Your task to perform on an android device: Open Google Chrome and click the shortcut for Amazon.com Image 0: 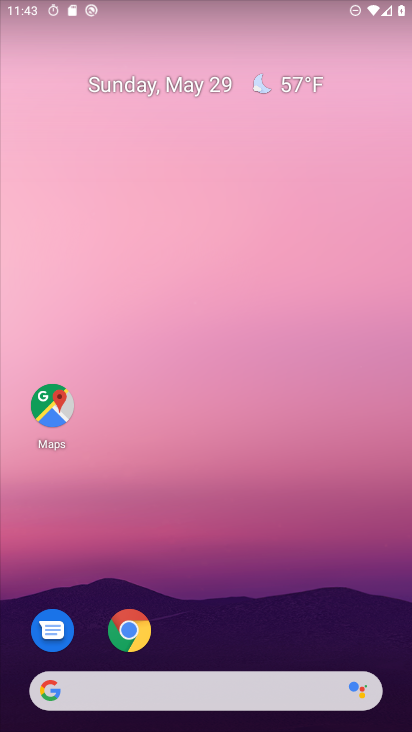
Step 0: press home button
Your task to perform on an android device: Open Google Chrome and click the shortcut for Amazon.com Image 1: 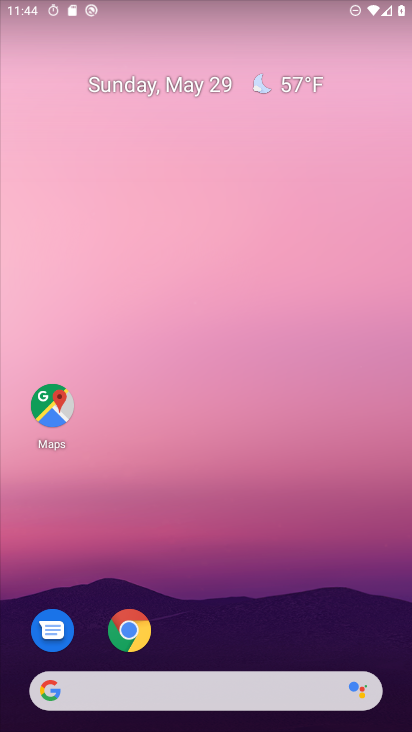
Step 1: drag from (323, 705) to (242, 288)
Your task to perform on an android device: Open Google Chrome and click the shortcut for Amazon.com Image 2: 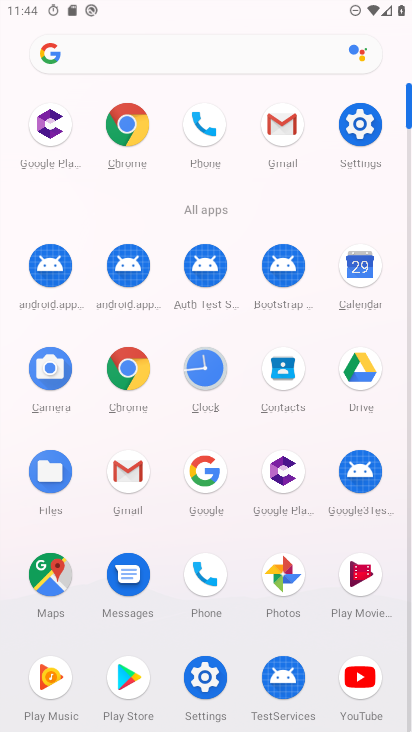
Step 2: click (146, 381)
Your task to perform on an android device: Open Google Chrome and click the shortcut for Amazon.com Image 3: 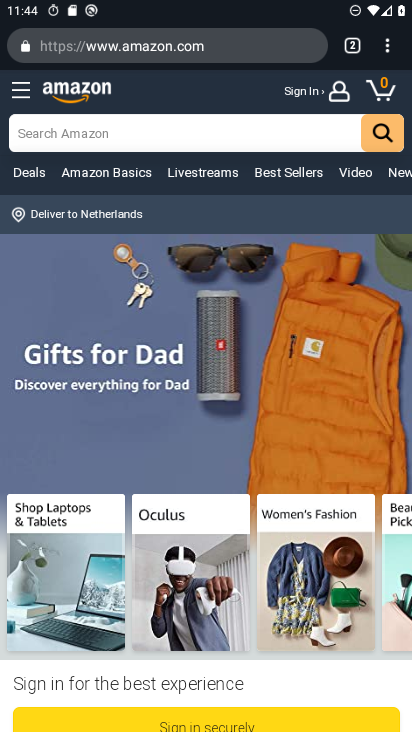
Step 3: task complete